Your task to perform on an android device: see creations saved in the google photos Image 0: 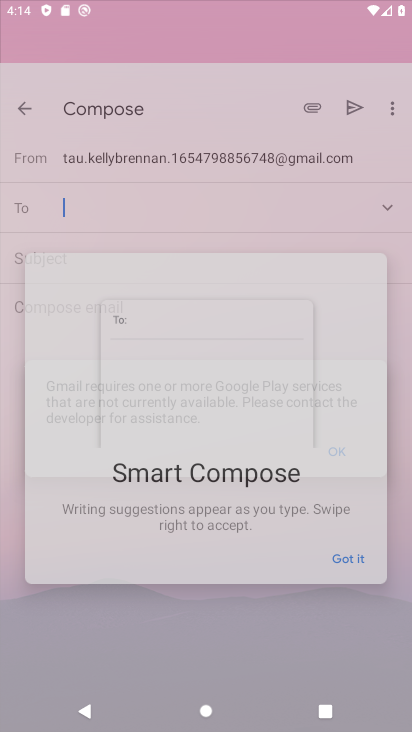
Step 0: press home button
Your task to perform on an android device: see creations saved in the google photos Image 1: 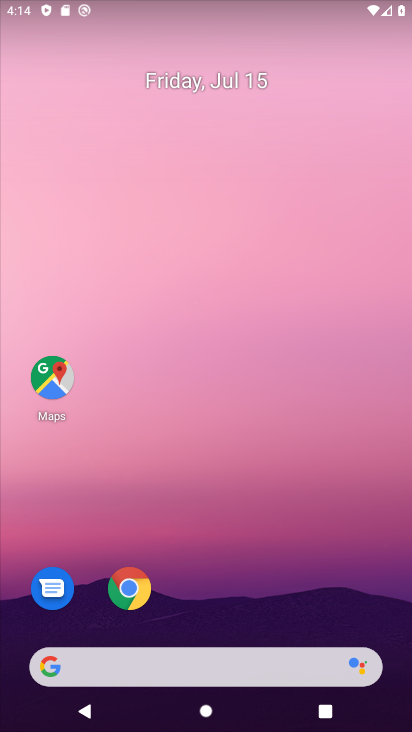
Step 1: drag from (92, 505) to (201, 207)
Your task to perform on an android device: see creations saved in the google photos Image 2: 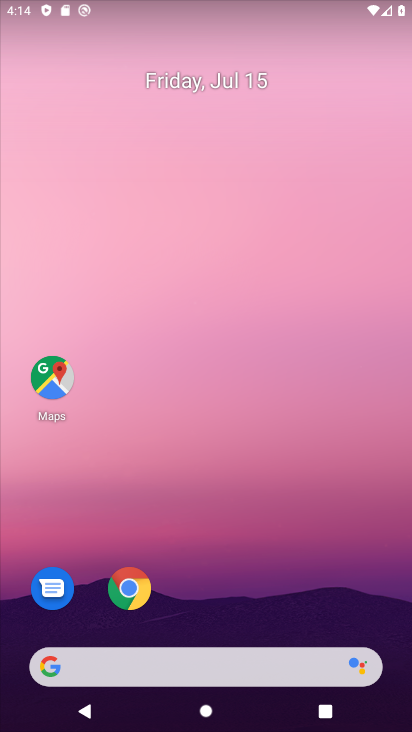
Step 2: drag from (55, 687) to (257, 2)
Your task to perform on an android device: see creations saved in the google photos Image 3: 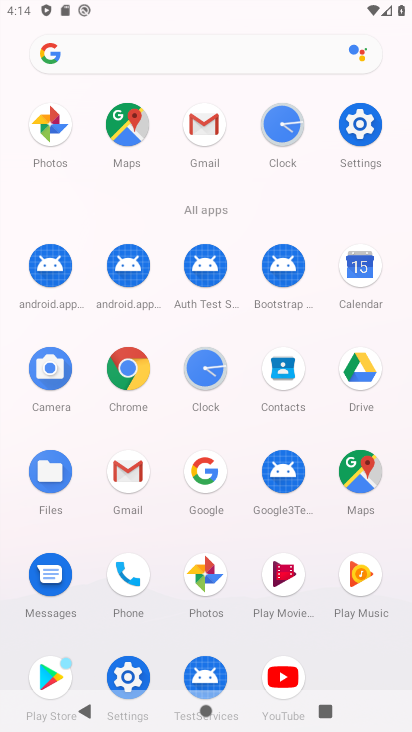
Step 3: click (194, 571)
Your task to perform on an android device: see creations saved in the google photos Image 4: 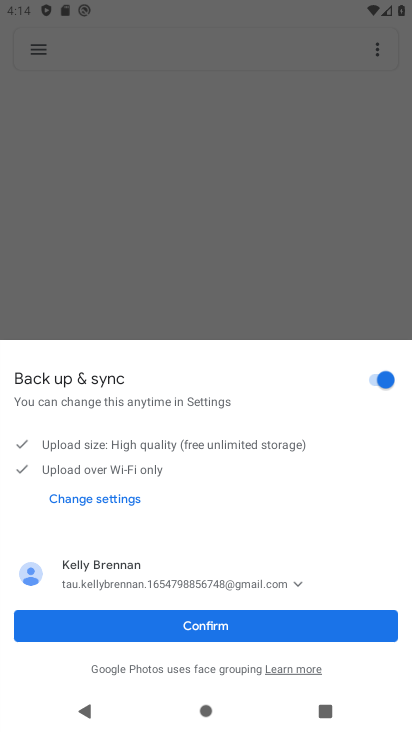
Step 4: click (247, 627)
Your task to perform on an android device: see creations saved in the google photos Image 5: 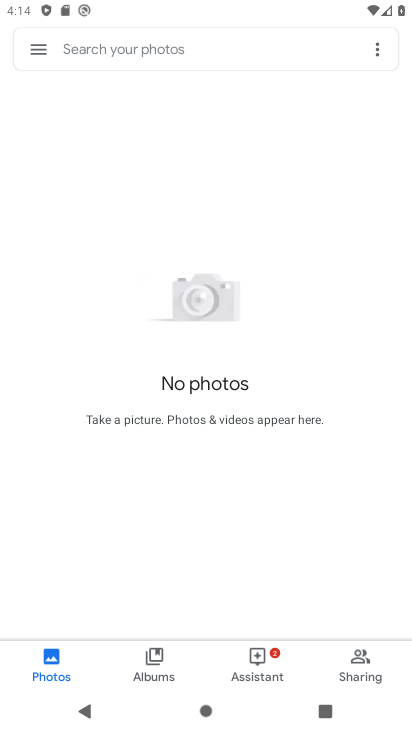
Step 5: click (373, 37)
Your task to perform on an android device: see creations saved in the google photos Image 6: 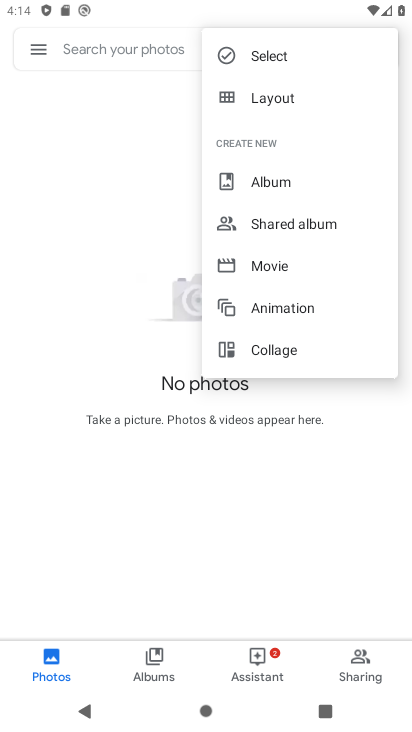
Step 6: click (87, 167)
Your task to perform on an android device: see creations saved in the google photos Image 7: 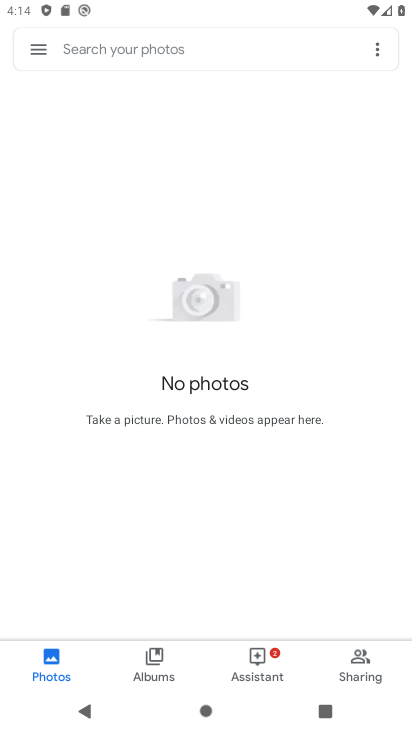
Step 7: task complete